Your task to perform on an android device: Go to Yahoo.com Image 0: 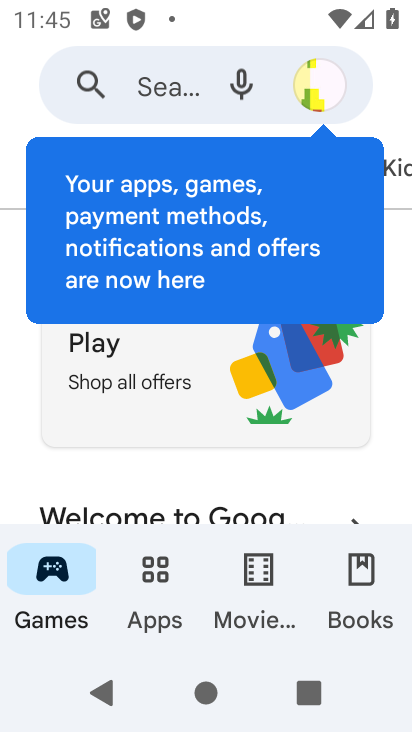
Step 0: press home button
Your task to perform on an android device: Go to Yahoo.com Image 1: 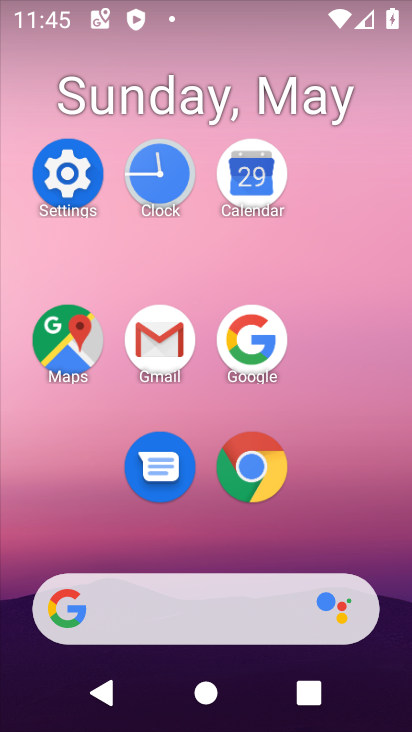
Step 1: click (242, 471)
Your task to perform on an android device: Go to Yahoo.com Image 2: 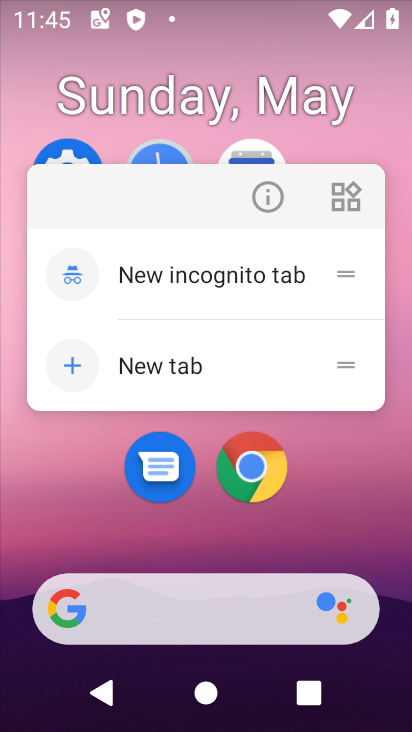
Step 2: click (244, 471)
Your task to perform on an android device: Go to Yahoo.com Image 3: 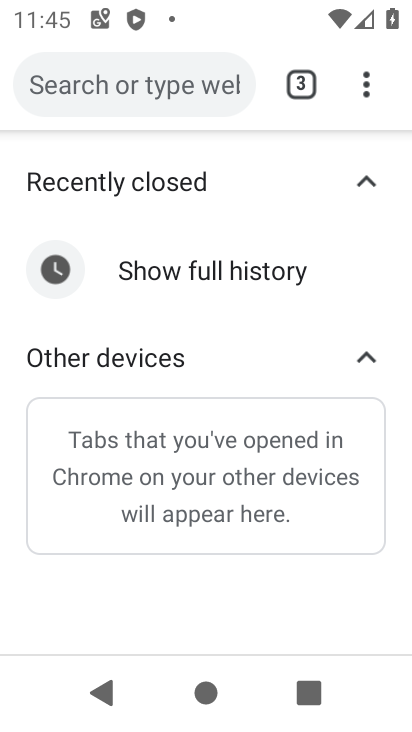
Step 3: click (299, 99)
Your task to perform on an android device: Go to Yahoo.com Image 4: 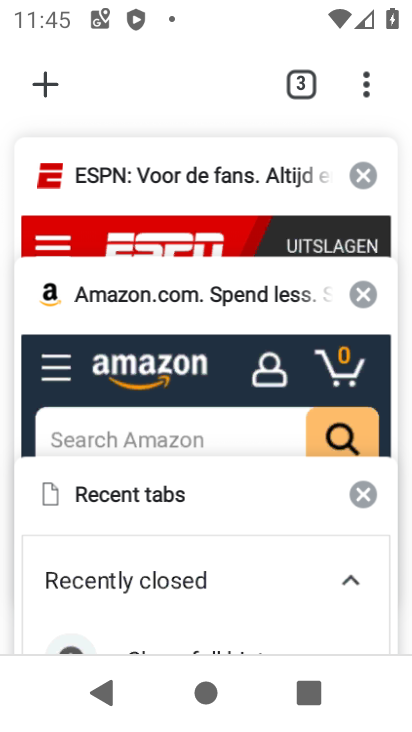
Step 4: drag from (203, 213) to (217, 515)
Your task to perform on an android device: Go to Yahoo.com Image 5: 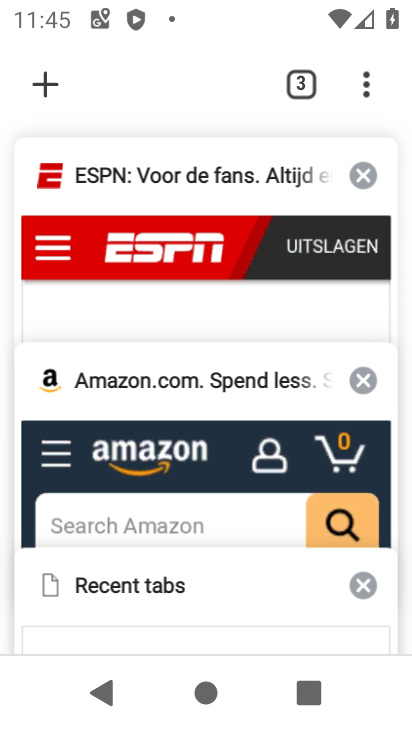
Step 5: click (53, 84)
Your task to perform on an android device: Go to Yahoo.com Image 6: 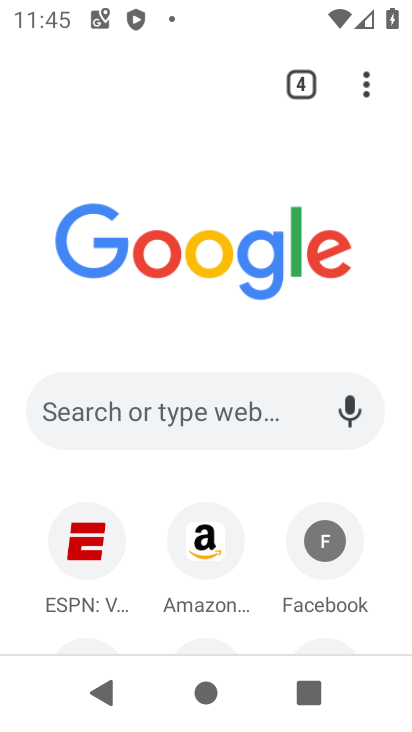
Step 6: drag from (264, 502) to (271, 246)
Your task to perform on an android device: Go to Yahoo.com Image 7: 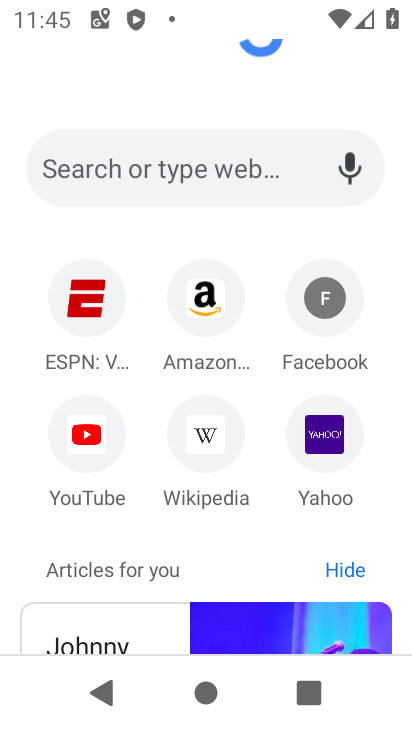
Step 7: click (313, 438)
Your task to perform on an android device: Go to Yahoo.com Image 8: 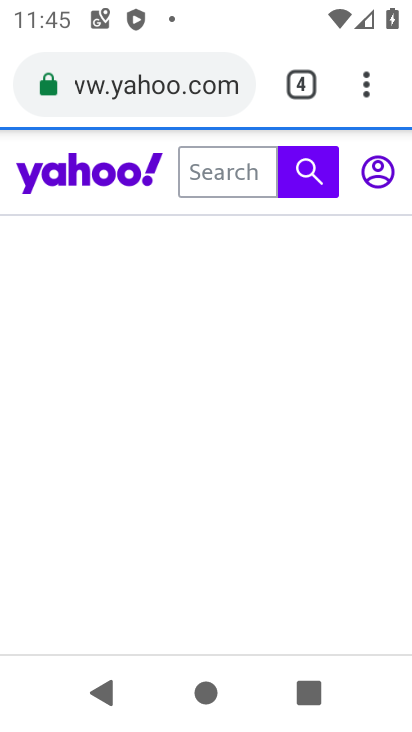
Step 8: task complete